Your task to perform on an android device: Check the news Image 0: 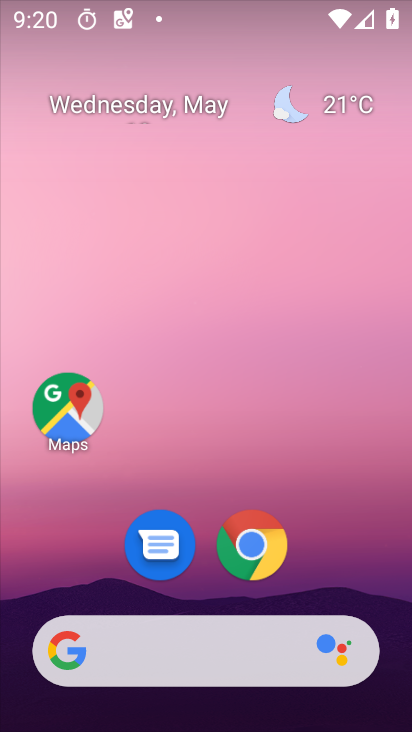
Step 0: drag from (331, 589) to (277, 26)
Your task to perform on an android device: Check the news Image 1: 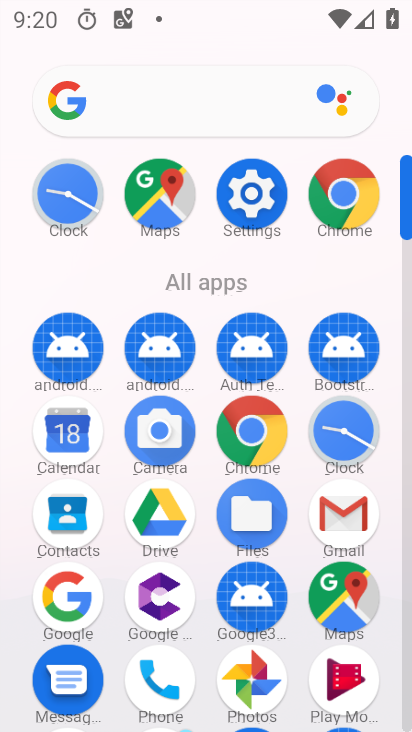
Step 1: click (178, 103)
Your task to perform on an android device: Check the news Image 2: 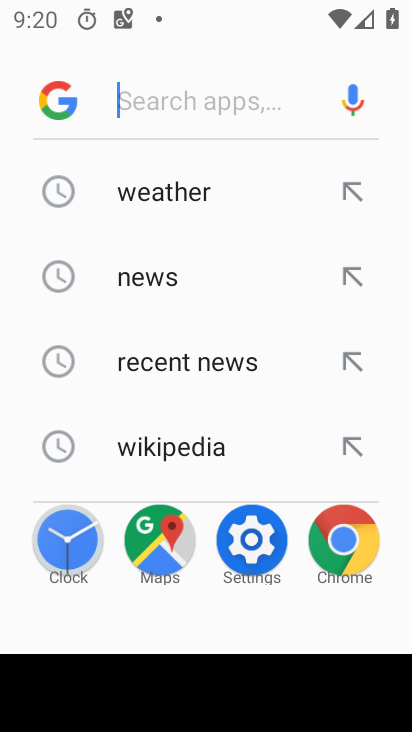
Step 2: type "news"
Your task to perform on an android device: Check the news Image 3: 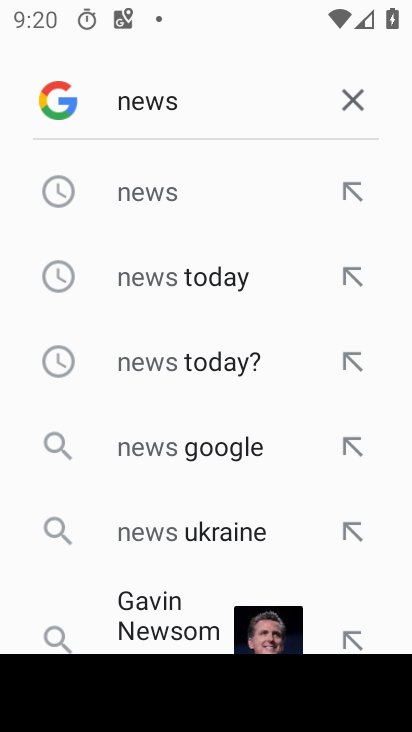
Step 3: click (144, 192)
Your task to perform on an android device: Check the news Image 4: 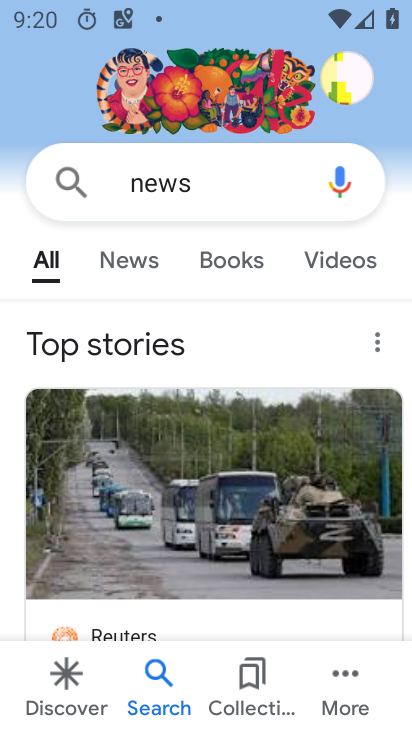
Step 4: click (133, 253)
Your task to perform on an android device: Check the news Image 5: 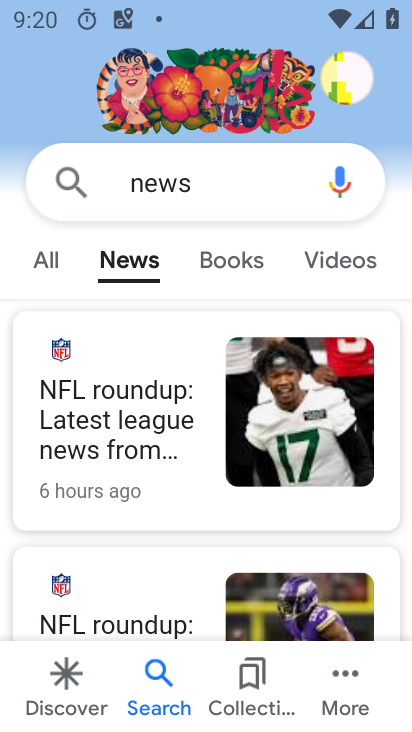
Step 5: task complete